Your task to perform on an android device: turn off picture-in-picture Image 0: 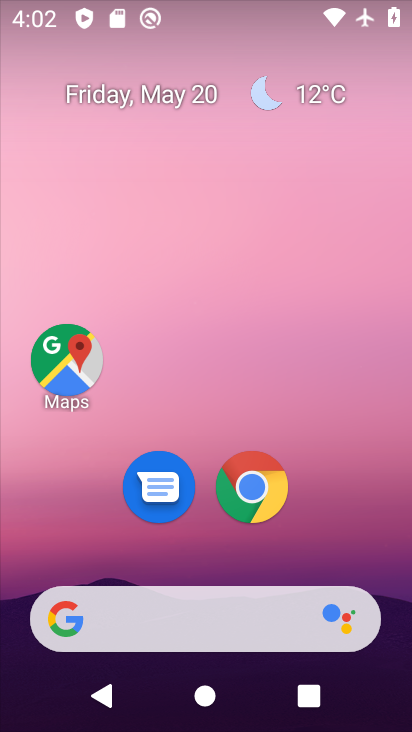
Step 0: drag from (245, 536) to (242, 144)
Your task to perform on an android device: turn off picture-in-picture Image 1: 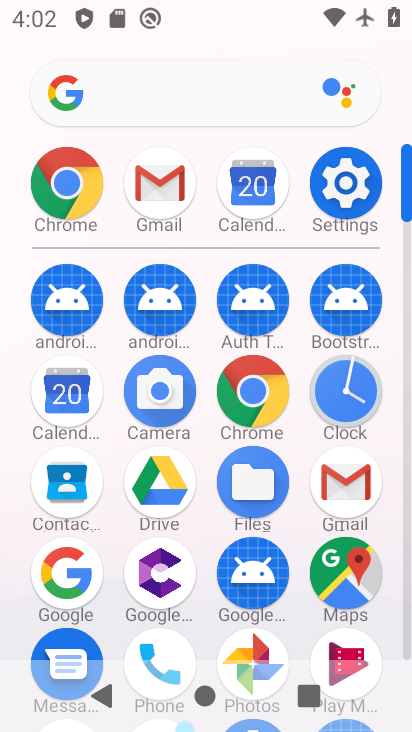
Step 1: click (343, 188)
Your task to perform on an android device: turn off picture-in-picture Image 2: 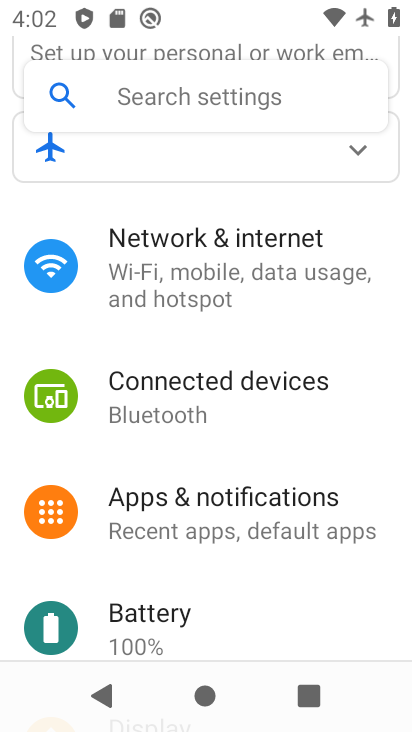
Step 2: click (222, 525)
Your task to perform on an android device: turn off picture-in-picture Image 3: 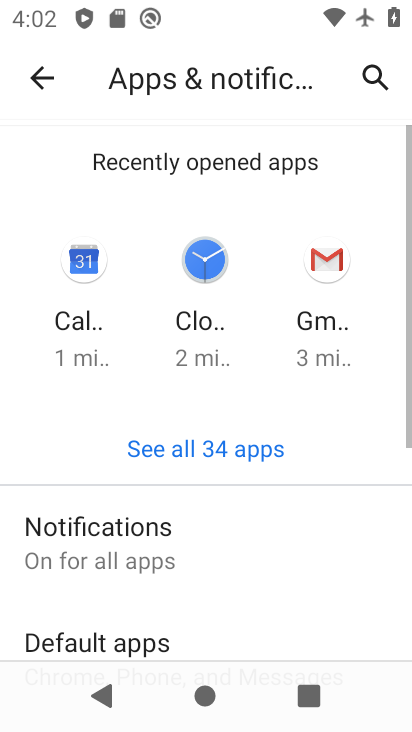
Step 3: drag from (201, 589) to (250, 188)
Your task to perform on an android device: turn off picture-in-picture Image 4: 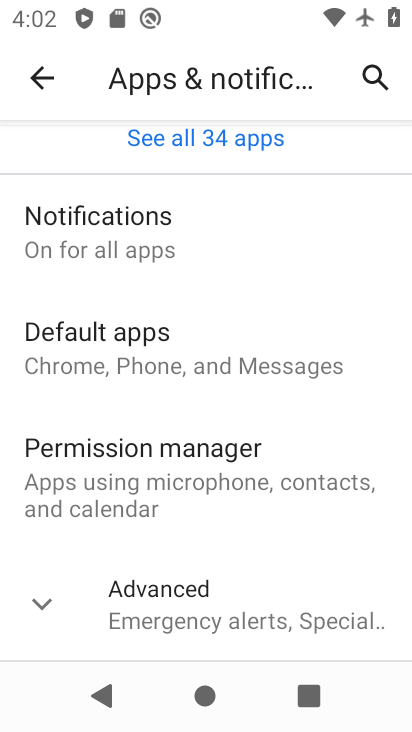
Step 4: click (156, 609)
Your task to perform on an android device: turn off picture-in-picture Image 5: 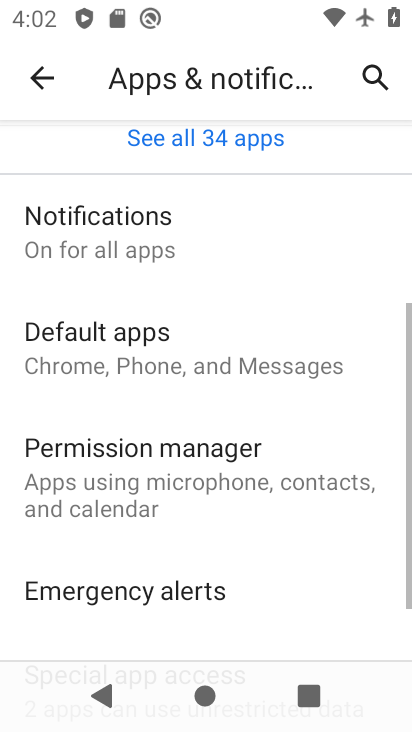
Step 5: drag from (156, 617) to (163, 273)
Your task to perform on an android device: turn off picture-in-picture Image 6: 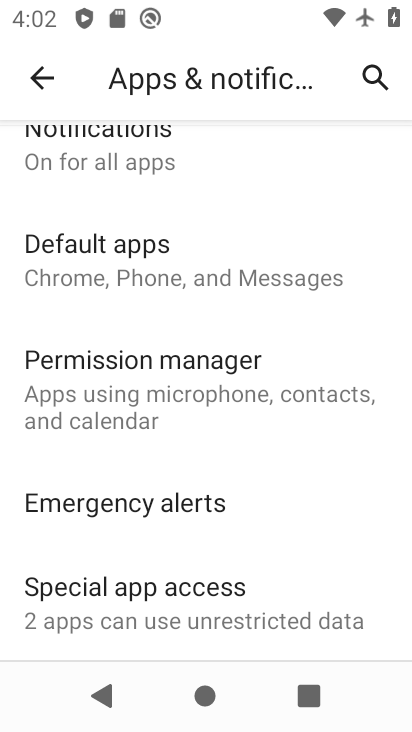
Step 6: click (143, 599)
Your task to perform on an android device: turn off picture-in-picture Image 7: 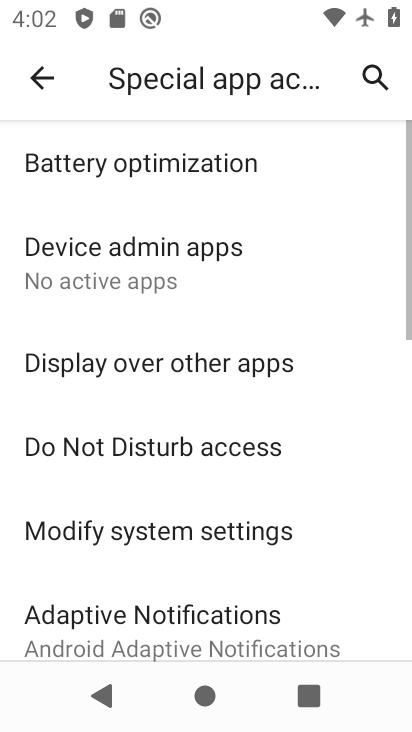
Step 7: drag from (136, 636) to (130, 322)
Your task to perform on an android device: turn off picture-in-picture Image 8: 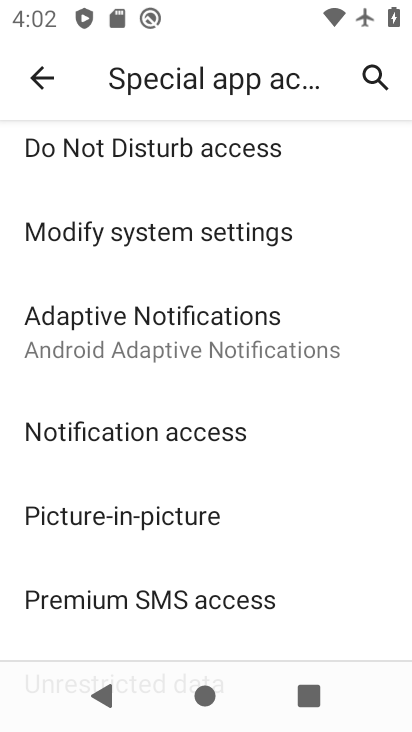
Step 8: click (133, 524)
Your task to perform on an android device: turn off picture-in-picture Image 9: 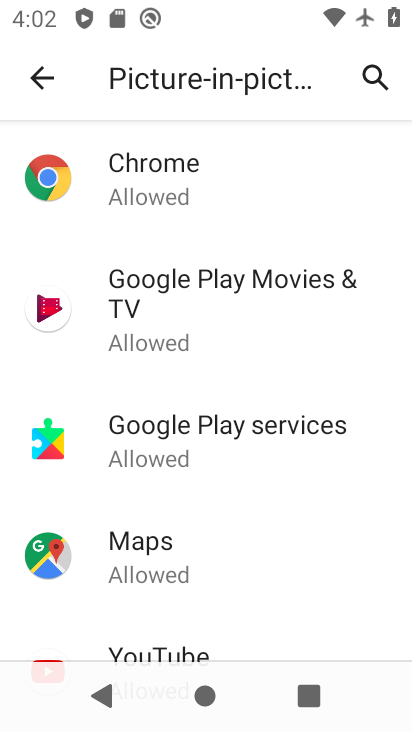
Step 9: click (130, 206)
Your task to perform on an android device: turn off picture-in-picture Image 10: 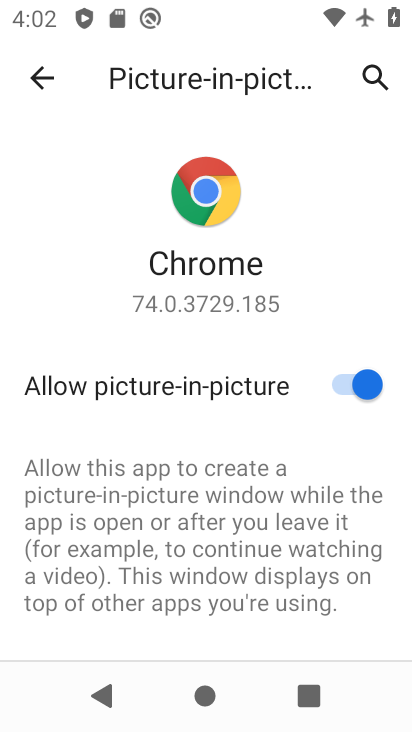
Step 10: click (342, 377)
Your task to perform on an android device: turn off picture-in-picture Image 11: 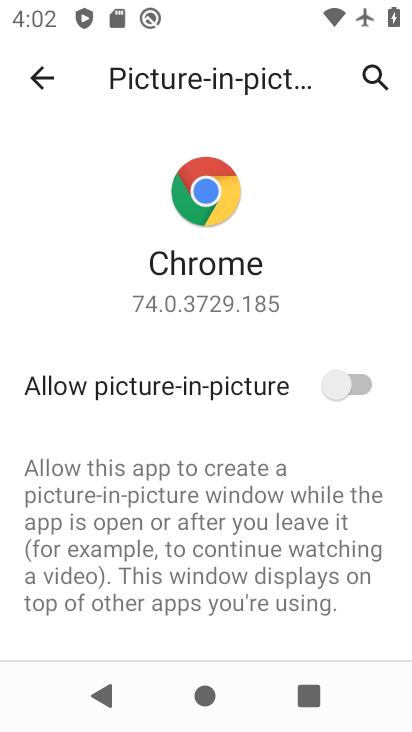
Step 11: task complete